Your task to perform on an android device: Set the phone to "Do not disturb". Image 0: 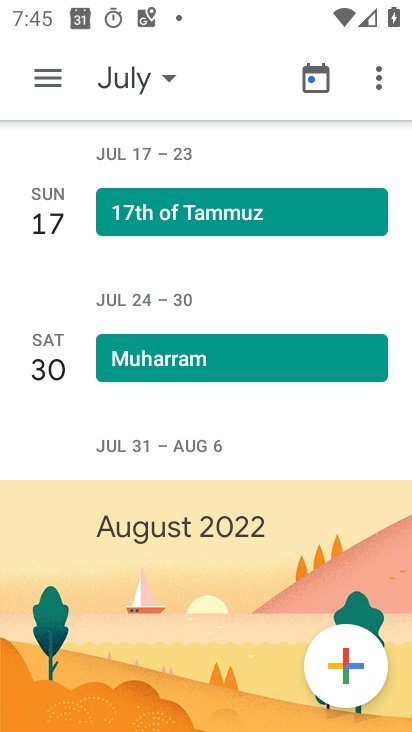
Step 0: press home button
Your task to perform on an android device: Set the phone to "Do not disturb". Image 1: 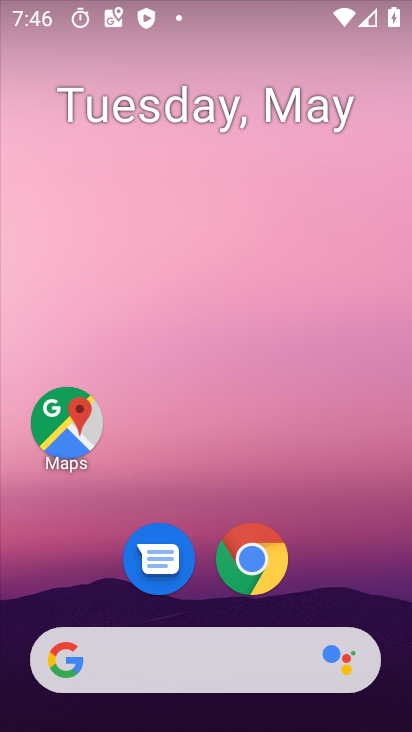
Step 1: drag from (206, 1) to (261, 466)
Your task to perform on an android device: Set the phone to "Do not disturb". Image 2: 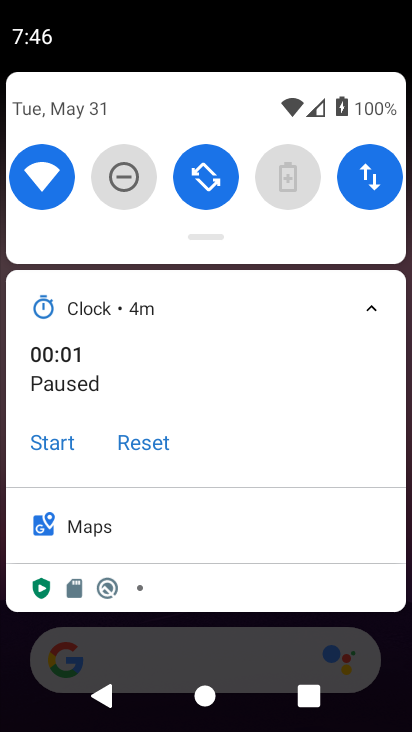
Step 2: click (123, 169)
Your task to perform on an android device: Set the phone to "Do not disturb". Image 3: 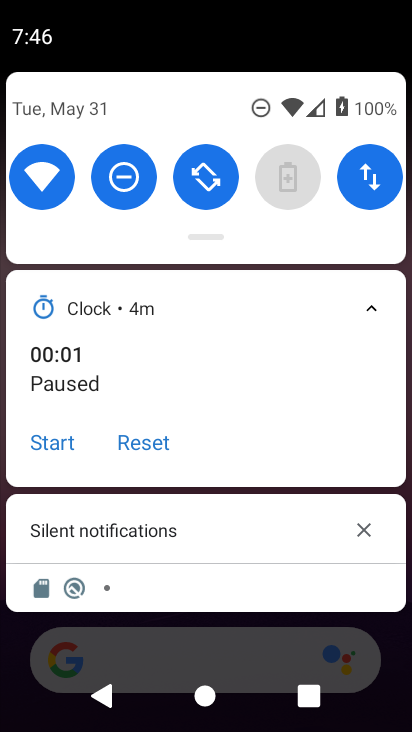
Step 3: task complete